Your task to perform on an android device: When is my next meeting? Image 0: 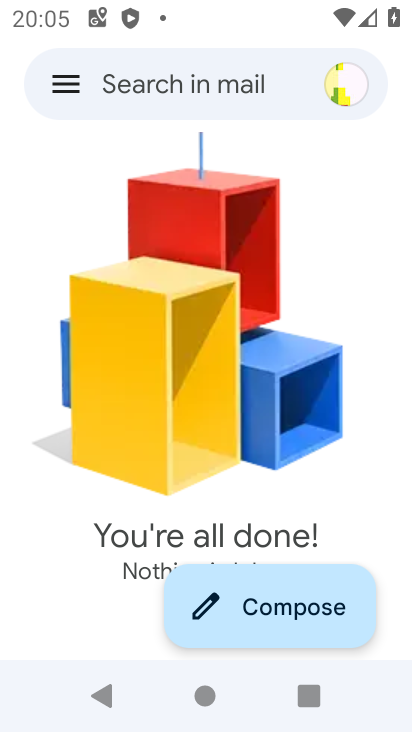
Step 0: press home button
Your task to perform on an android device: When is my next meeting? Image 1: 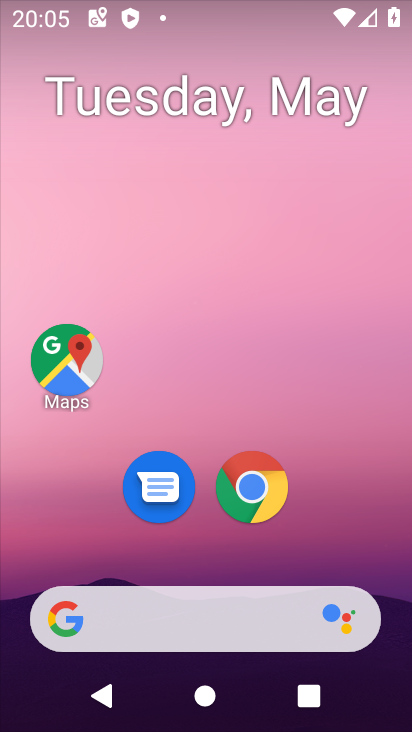
Step 1: drag from (337, 513) to (345, 43)
Your task to perform on an android device: When is my next meeting? Image 2: 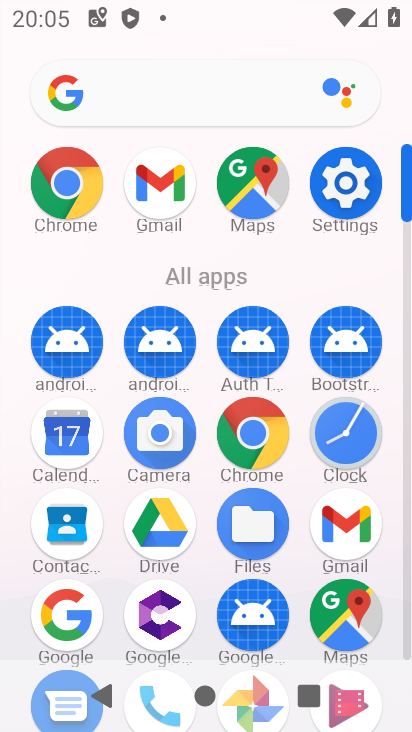
Step 2: click (57, 459)
Your task to perform on an android device: When is my next meeting? Image 3: 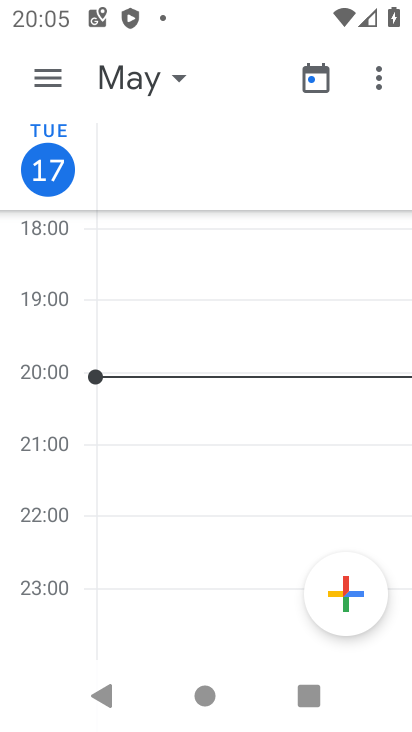
Step 3: task complete